Your task to perform on an android device: change the clock display to analog Image 0: 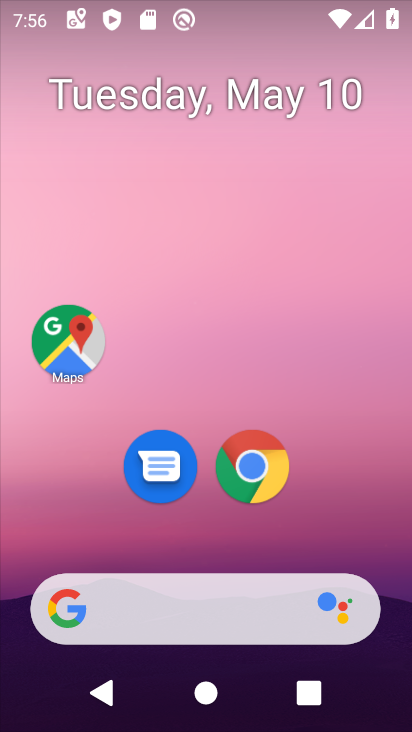
Step 0: drag from (251, 565) to (322, 58)
Your task to perform on an android device: change the clock display to analog Image 1: 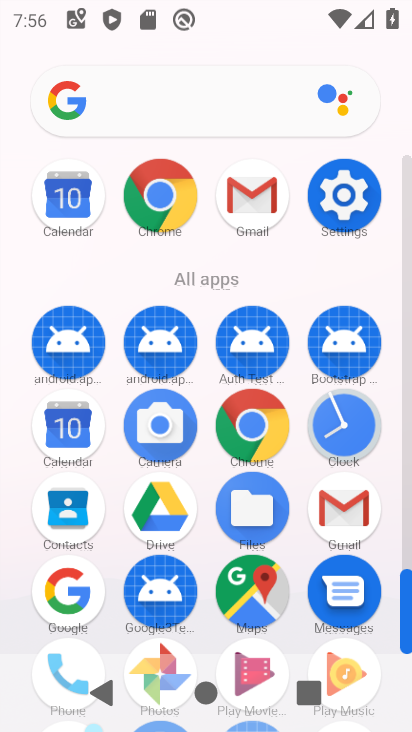
Step 1: click (339, 420)
Your task to perform on an android device: change the clock display to analog Image 2: 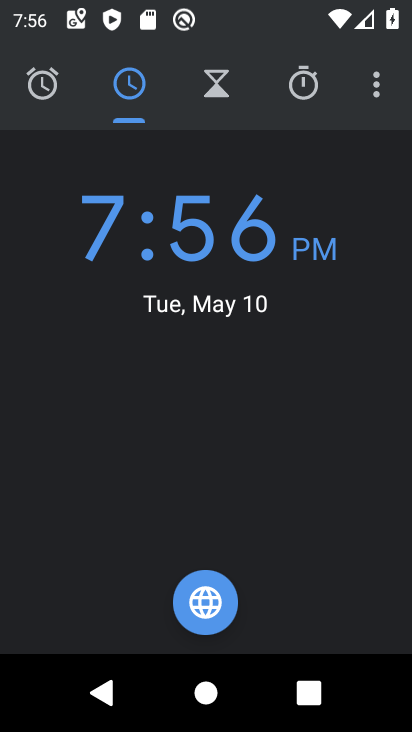
Step 2: click (372, 84)
Your task to perform on an android device: change the clock display to analog Image 3: 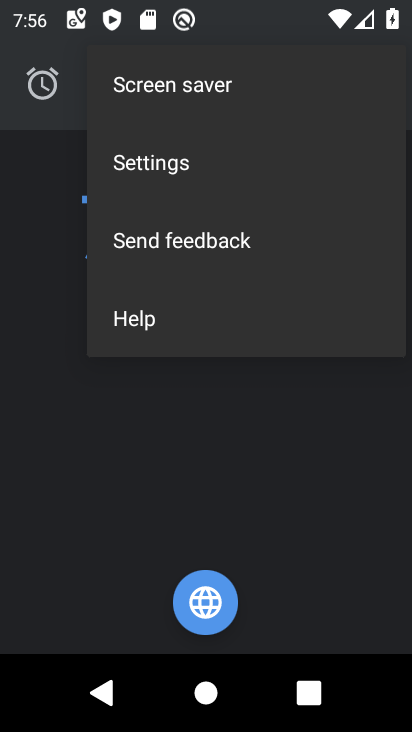
Step 3: click (280, 164)
Your task to perform on an android device: change the clock display to analog Image 4: 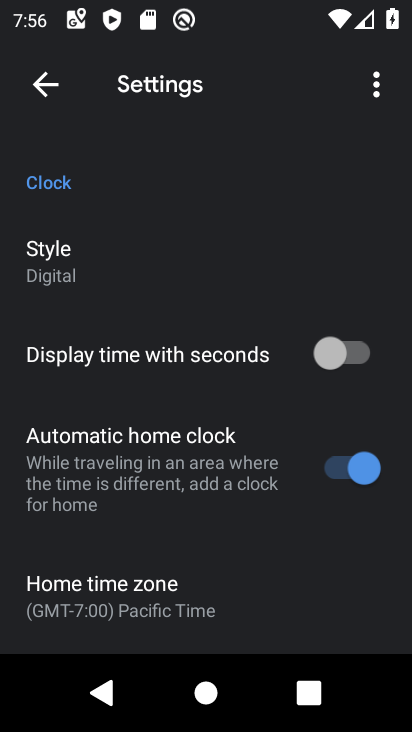
Step 4: click (120, 253)
Your task to perform on an android device: change the clock display to analog Image 5: 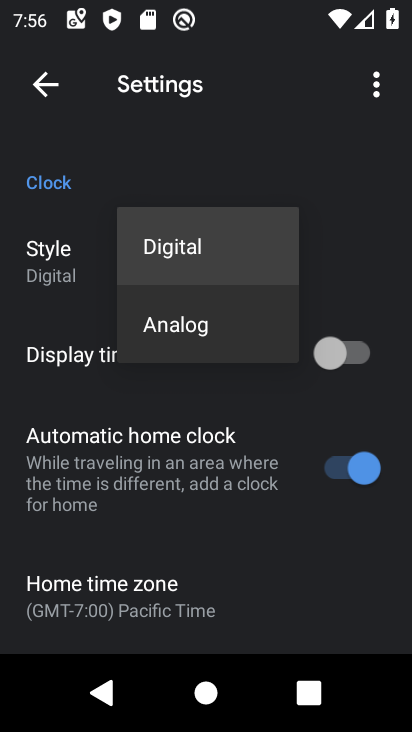
Step 5: click (179, 320)
Your task to perform on an android device: change the clock display to analog Image 6: 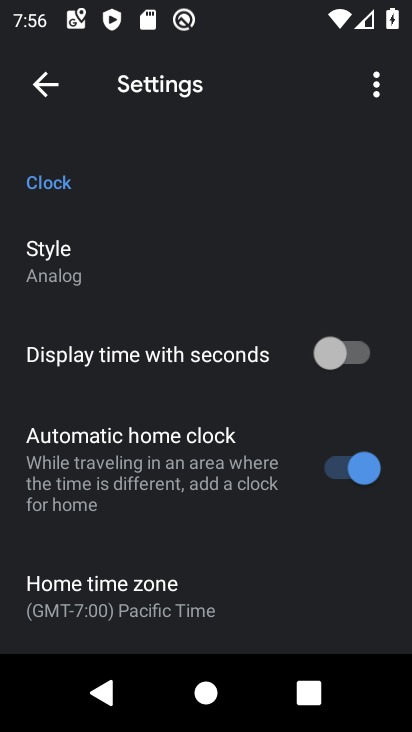
Step 6: task complete